Your task to perform on an android device: turn on the 24-hour format for clock Image 0: 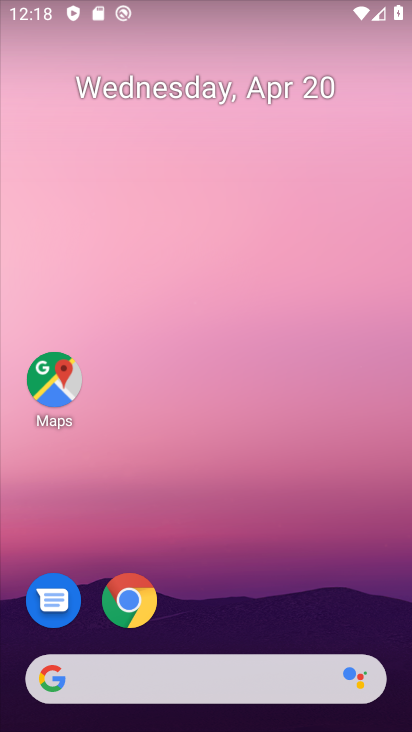
Step 0: drag from (310, 535) to (221, 30)
Your task to perform on an android device: turn on the 24-hour format for clock Image 1: 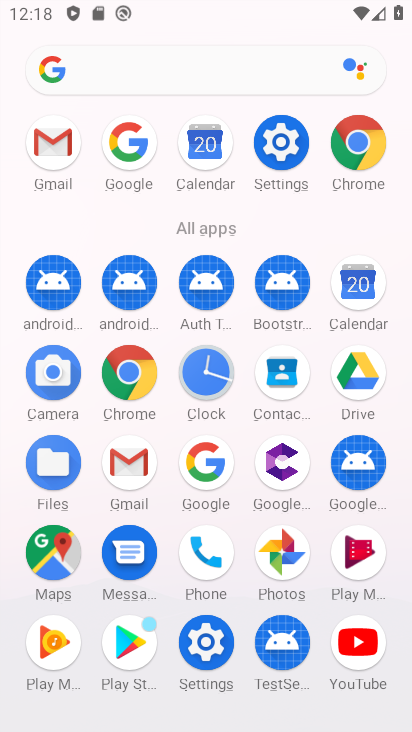
Step 1: click (207, 371)
Your task to perform on an android device: turn on the 24-hour format for clock Image 2: 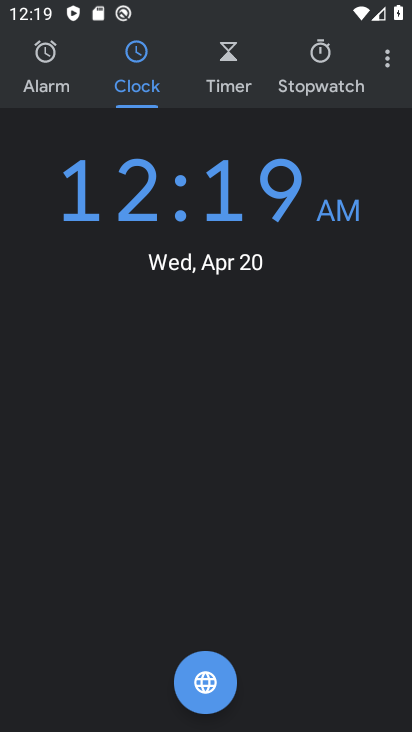
Step 2: click (35, 74)
Your task to perform on an android device: turn on the 24-hour format for clock Image 3: 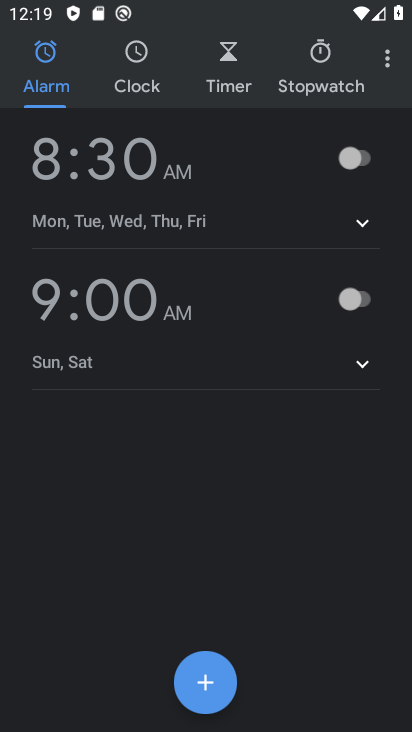
Step 3: click (384, 50)
Your task to perform on an android device: turn on the 24-hour format for clock Image 4: 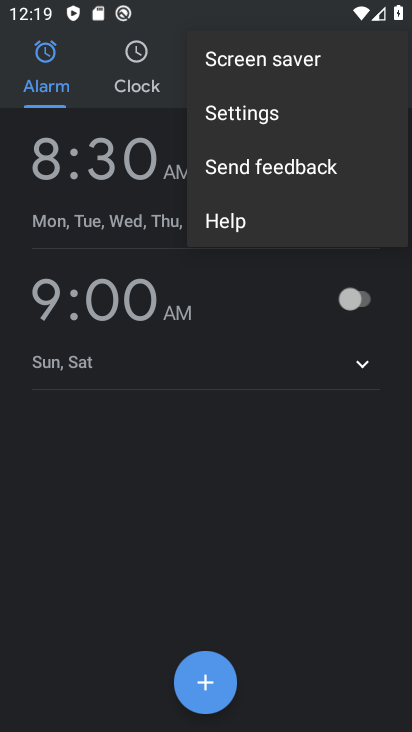
Step 4: click (260, 114)
Your task to perform on an android device: turn on the 24-hour format for clock Image 5: 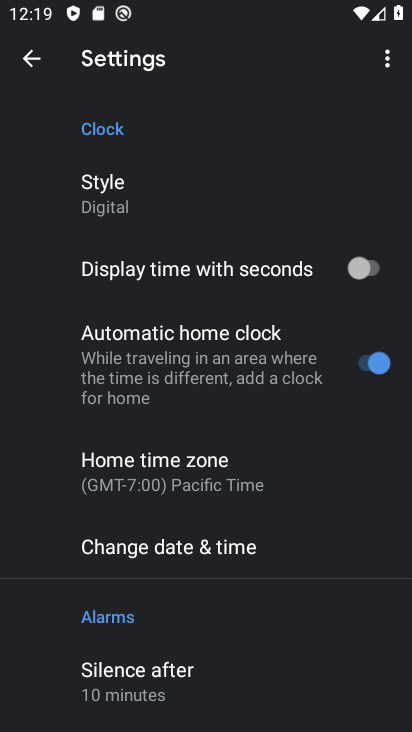
Step 5: click (181, 525)
Your task to perform on an android device: turn on the 24-hour format for clock Image 6: 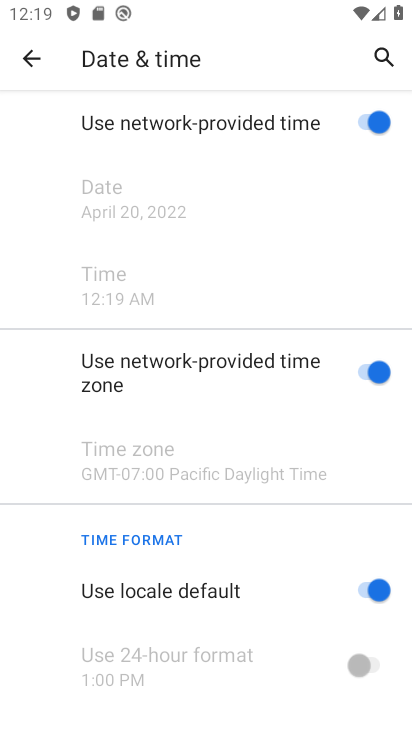
Step 6: click (365, 587)
Your task to perform on an android device: turn on the 24-hour format for clock Image 7: 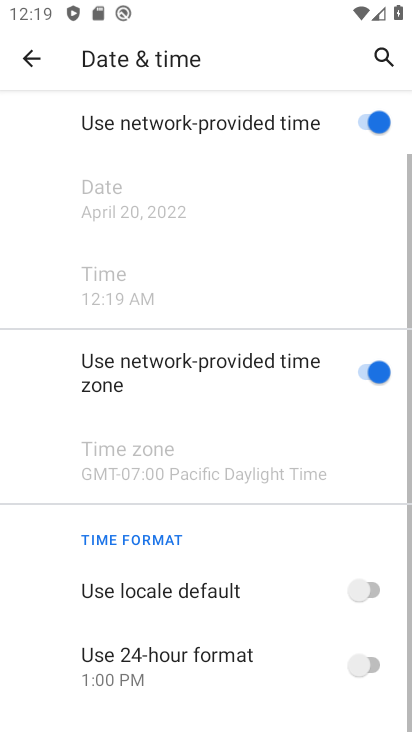
Step 7: click (379, 659)
Your task to perform on an android device: turn on the 24-hour format for clock Image 8: 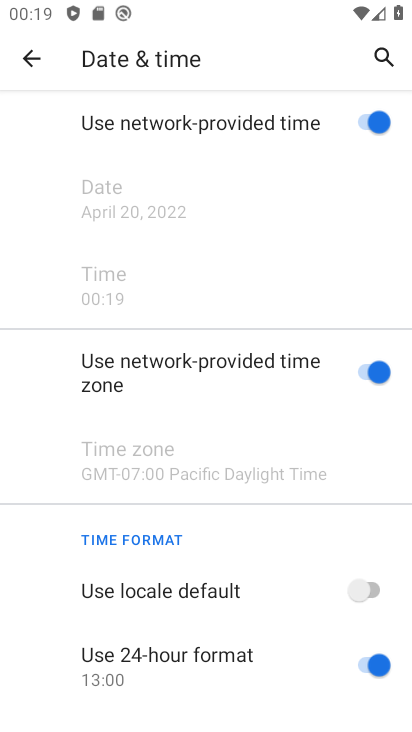
Step 8: task complete